Your task to perform on an android device: Show me popular games on the Play Store Image 0: 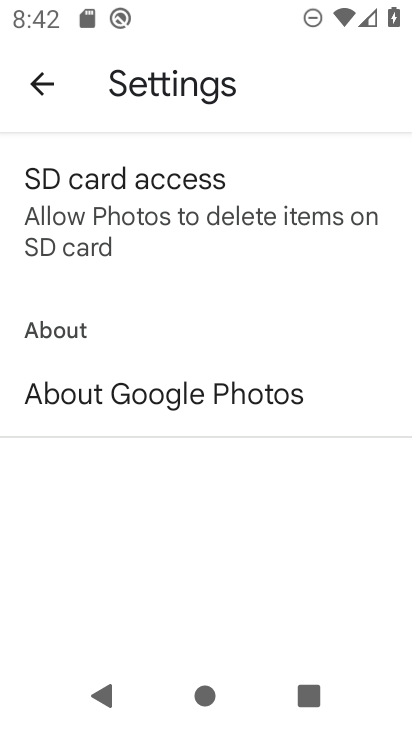
Step 0: press home button
Your task to perform on an android device: Show me popular games on the Play Store Image 1: 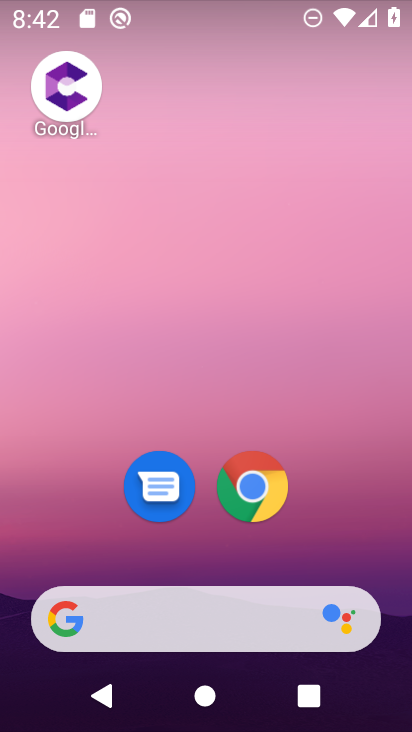
Step 1: drag from (402, 611) to (334, 191)
Your task to perform on an android device: Show me popular games on the Play Store Image 2: 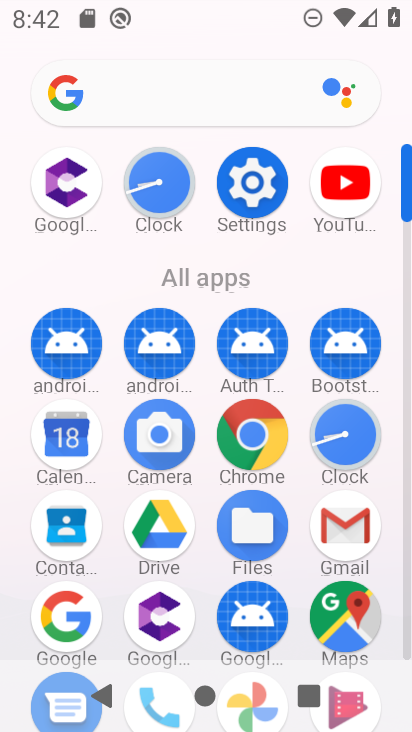
Step 2: click (406, 645)
Your task to perform on an android device: Show me popular games on the Play Store Image 3: 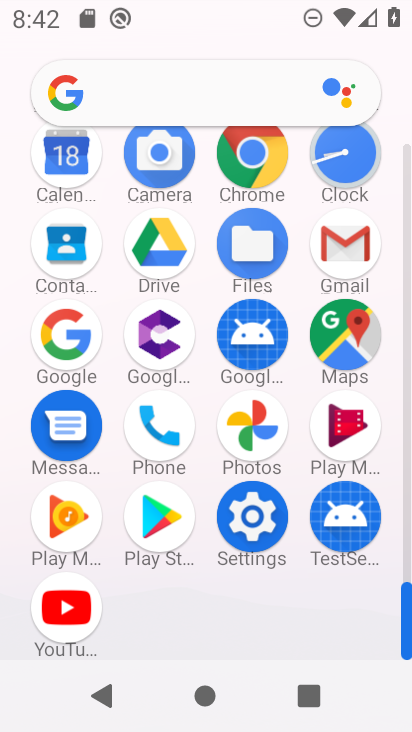
Step 3: click (164, 518)
Your task to perform on an android device: Show me popular games on the Play Store Image 4: 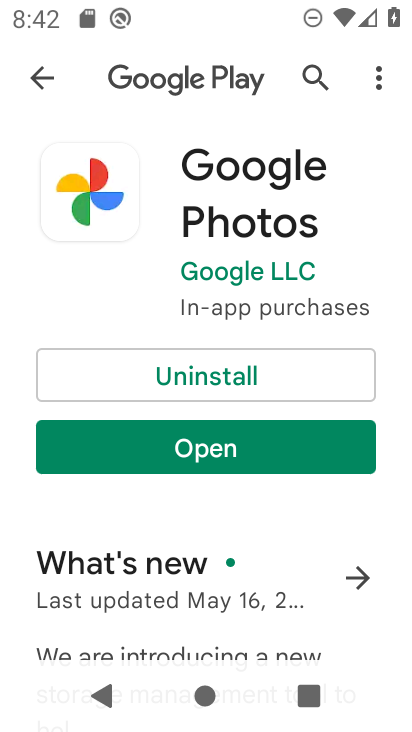
Step 4: press back button
Your task to perform on an android device: Show me popular games on the Play Store Image 5: 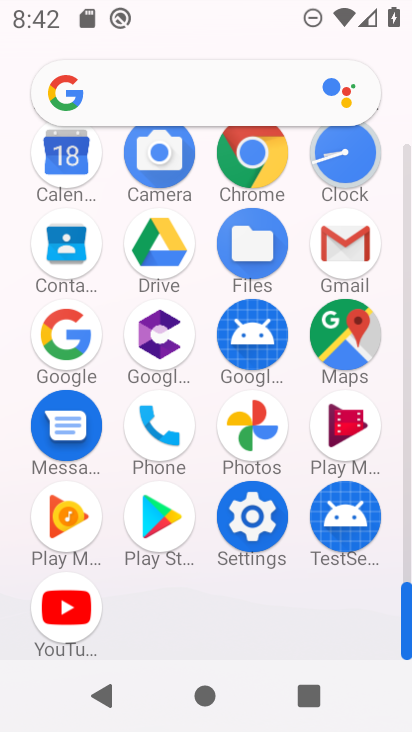
Step 5: click (170, 518)
Your task to perform on an android device: Show me popular games on the Play Store Image 6: 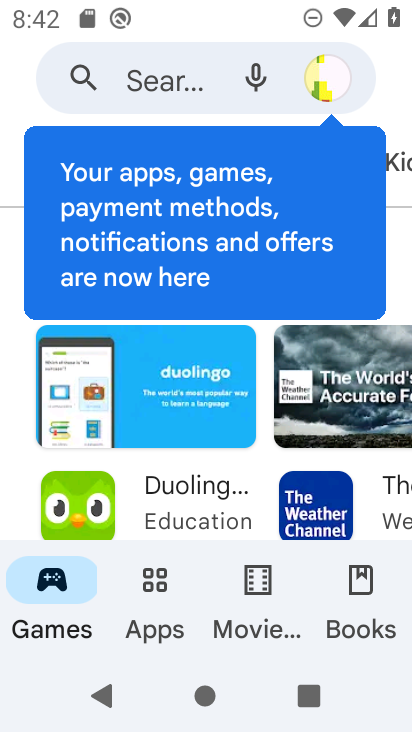
Step 6: drag from (227, 506) to (205, 154)
Your task to perform on an android device: Show me popular games on the Play Store Image 7: 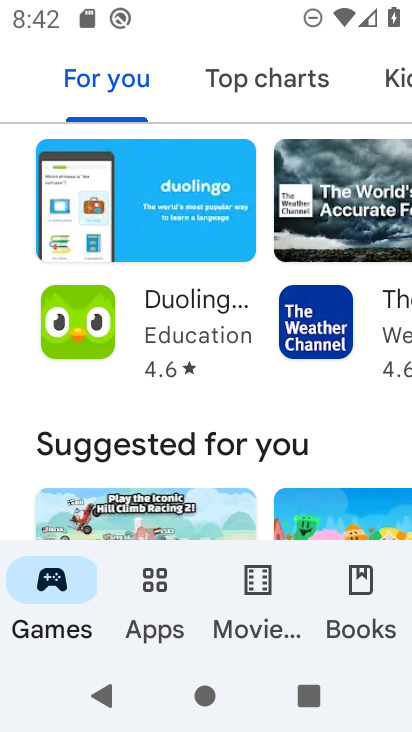
Step 7: drag from (235, 444) to (205, 109)
Your task to perform on an android device: Show me popular games on the Play Store Image 8: 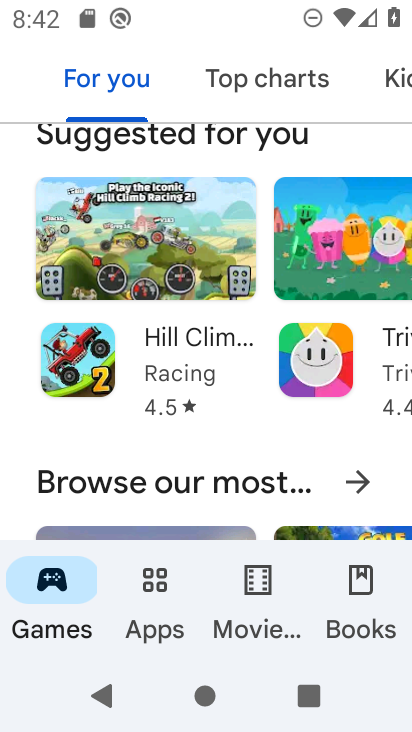
Step 8: drag from (242, 505) to (224, 213)
Your task to perform on an android device: Show me popular games on the Play Store Image 9: 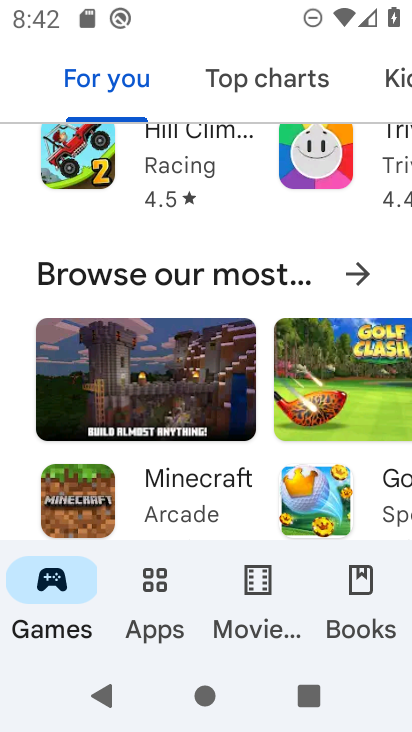
Step 9: drag from (256, 495) to (233, 144)
Your task to perform on an android device: Show me popular games on the Play Store Image 10: 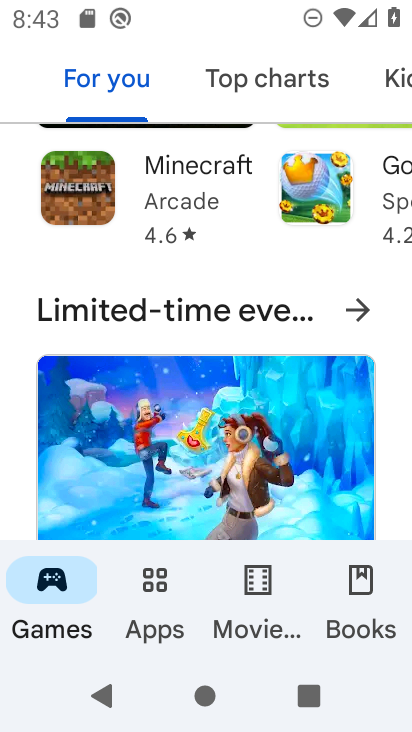
Step 10: drag from (248, 495) to (215, 137)
Your task to perform on an android device: Show me popular games on the Play Store Image 11: 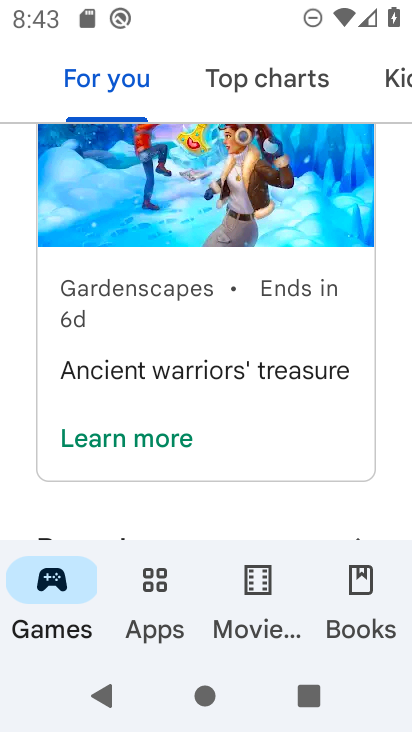
Step 11: drag from (219, 514) to (195, 202)
Your task to perform on an android device: Show me popular games on the Play Store Image 12: 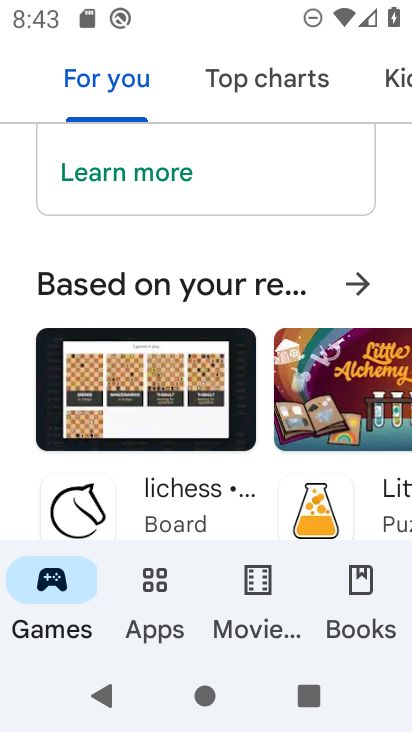
Step 12: drag from (267, 528) to (225, 204)
Your task to perform on an android device: Show me popular games on the Play Store Image 13: 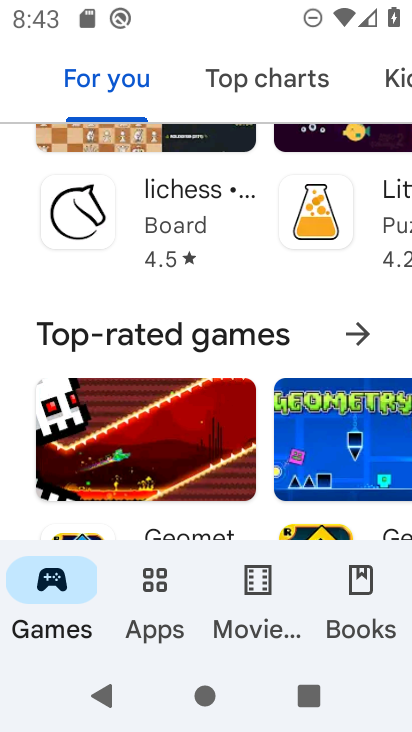
Step 13: click (360, 330)
Your task to perform on an android device: Show me popular games on the Play Store Image 14: 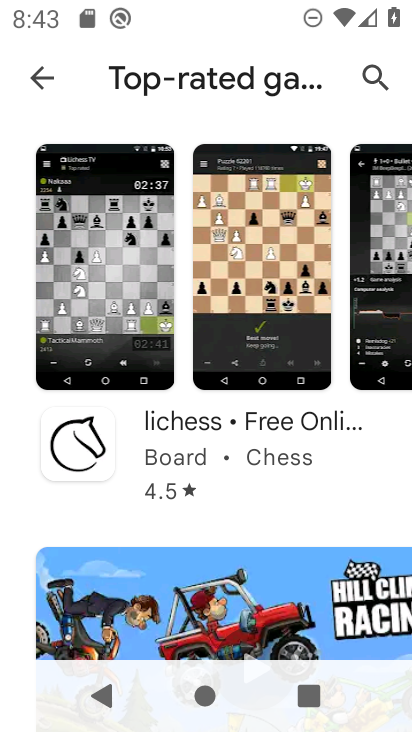
Step 14: task complete